Your task to perform on an android device: toggle show notifications on the lock screen Image 0: 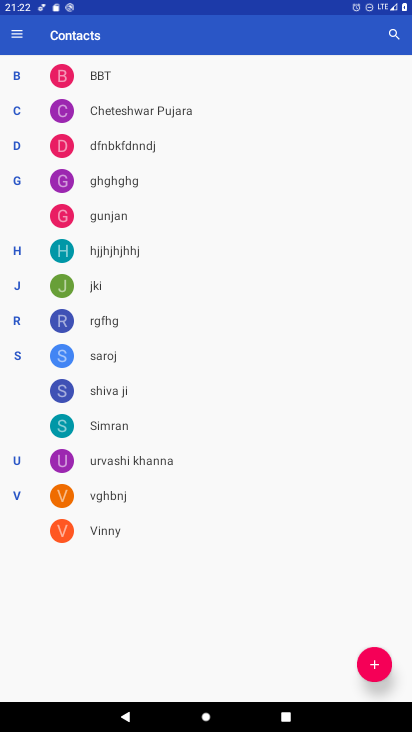
Step 0: press home button
Your task to perform on an android device: toggle show notifications on the lock screen Image 1: 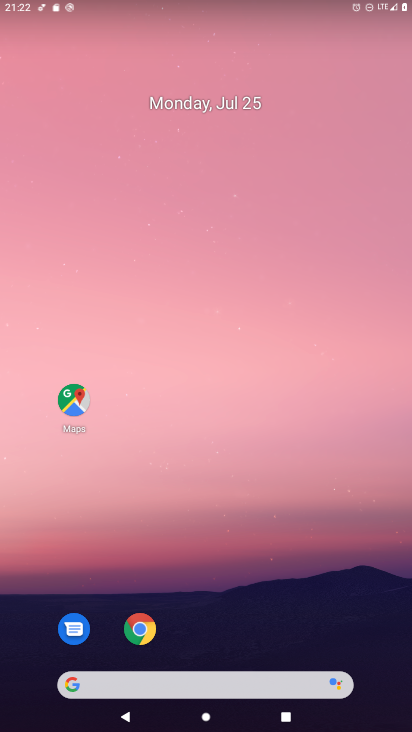
Step 1: drag from (179, 677) to (314, 102)
Your task to perform on an android device: toggle show notifications on the lock screen Image 2: 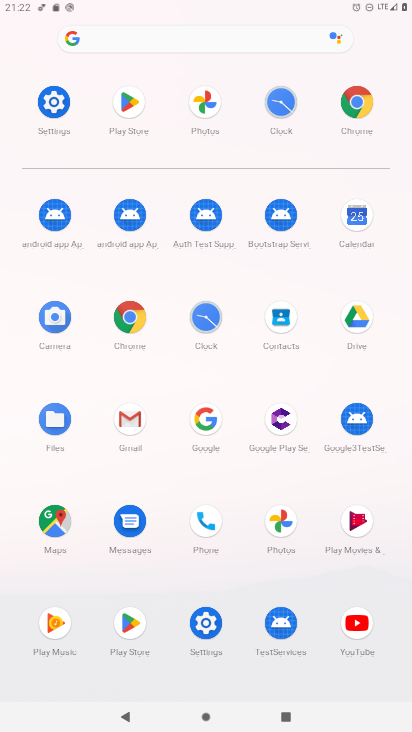
Step 2: click (54, 101)
Your task to perform on an android device: toggle show notifications on the lock screen Image 3: 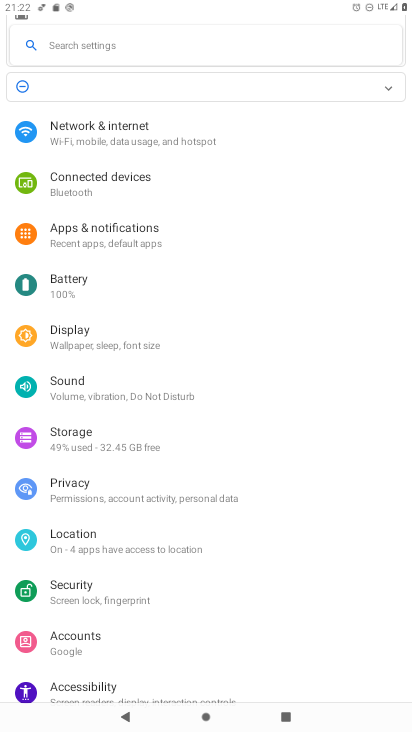
Step 3: click (80, 232)
Your task to perform on an android device: toggle show notifications on the lock screen Image 4: 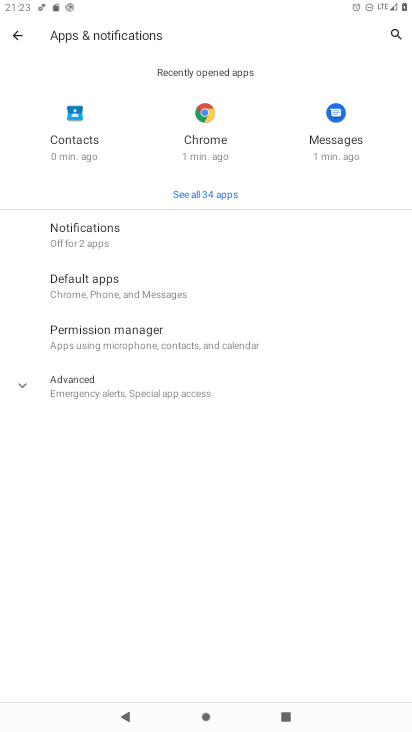
Step 4: click (80, 232)
Your task to perform on an android device: toggle show notifications on the lock screen Image 5: 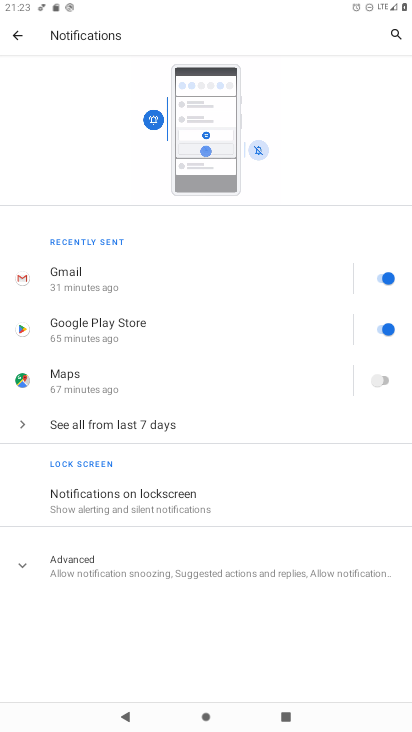
Step 5: click (99, 493)
Your task to perform on an android device: toggle show notifications on the lock screen Image 6: 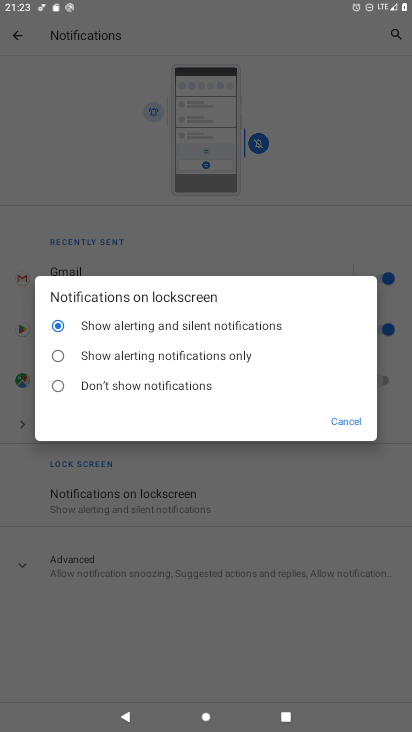
Step 6: click (52, 387)
Your task to perform on an android device: toggle show notifications on the lock screen Image 7: 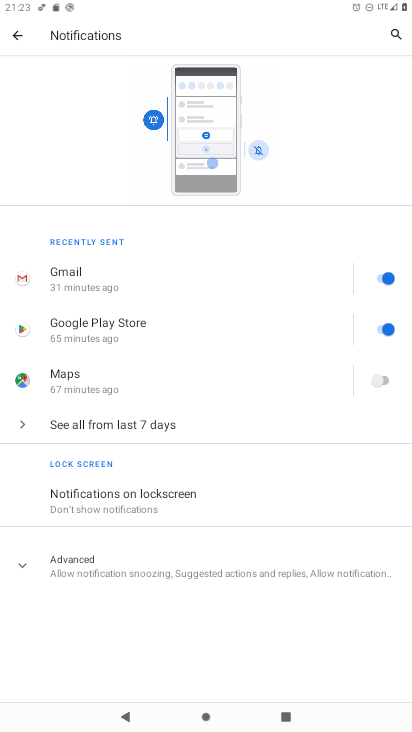
Step 7: task complete